Your task to perform on an android device: stop showing notifications on the lock screen Image 0: 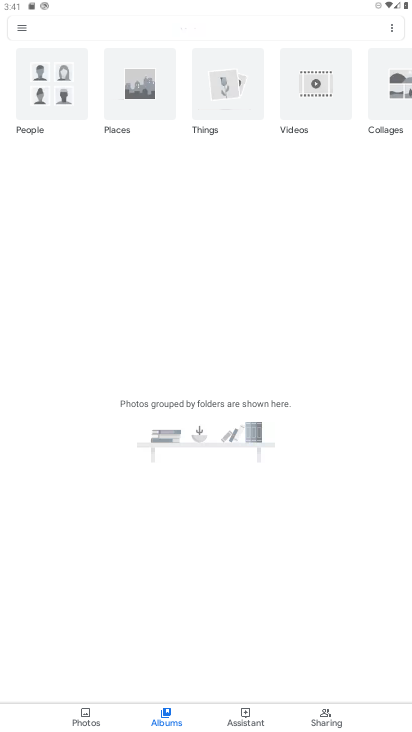
Step 0: press home button
Your task to perform on an android device: stop showing notifications on the lock screen Image 1: 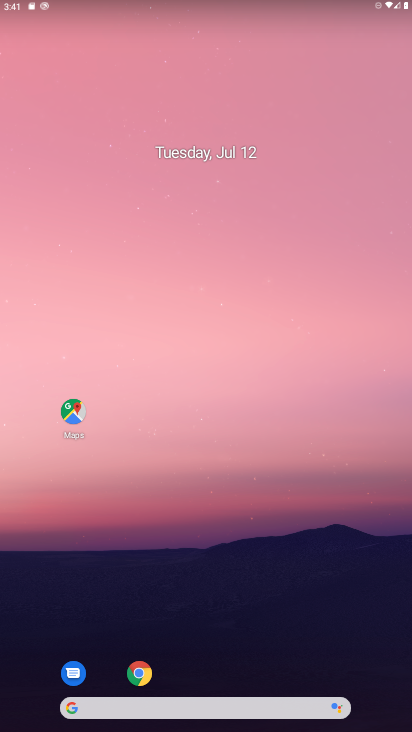
Step 1: drag from (190, 713) to (286, 210)
Your task to perform on an android device: stop showing notifications on the lock screen Image 2: 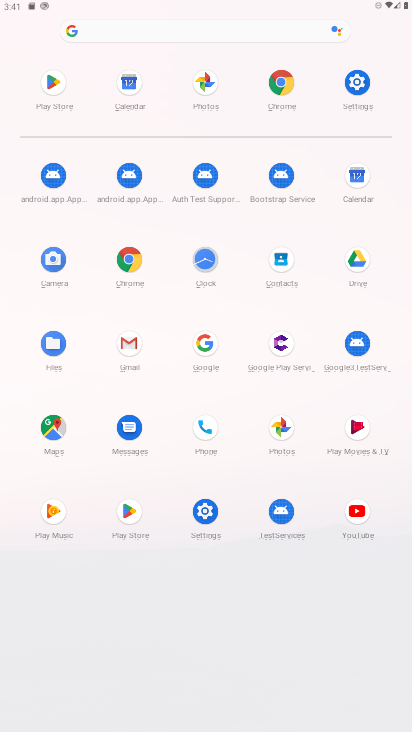
Step 2: click (359, 81)
Your task to perform on an android device: stop showing notifications on the lock screen Image 3: 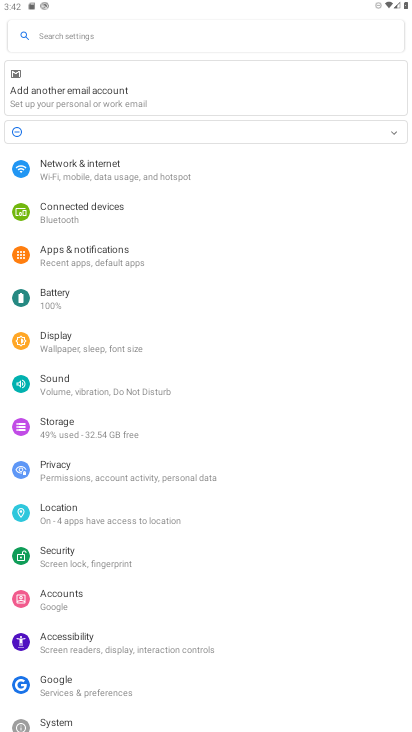
Step 3: click (83, 255)
Your task to perform on an android device: stop showing notifications on the lock screen Image 4: 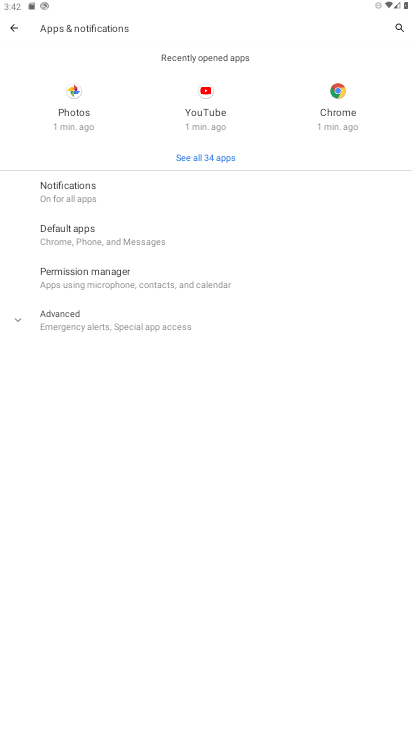
Step 4: click (75, 193)
Your task to perform on an android device: stop showing notifications on the lock screen Image 5: 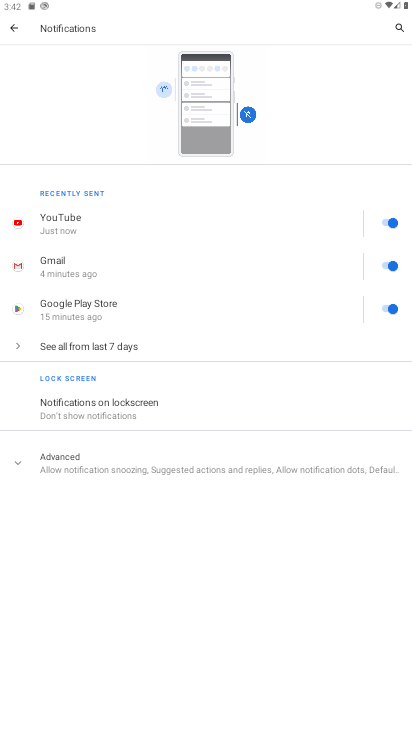
Step 5: click (116, 406)
Your task to perform on an android device: stop showing notifications on the lock screen Image 6: 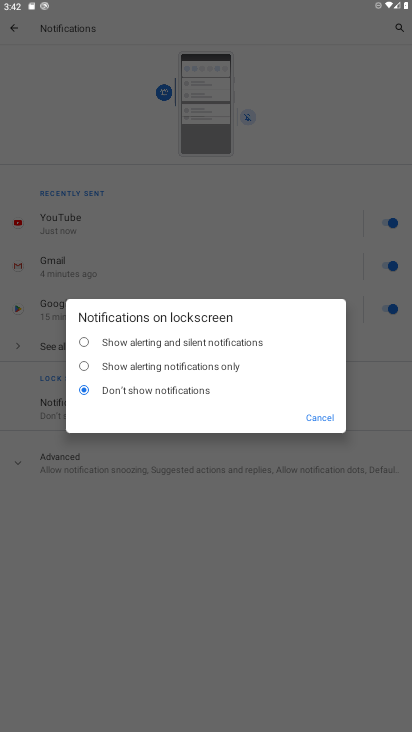
Step 6: click (250, 590)
Your task to perform on an android device: stop showing notifications on the lock screen Image 7: 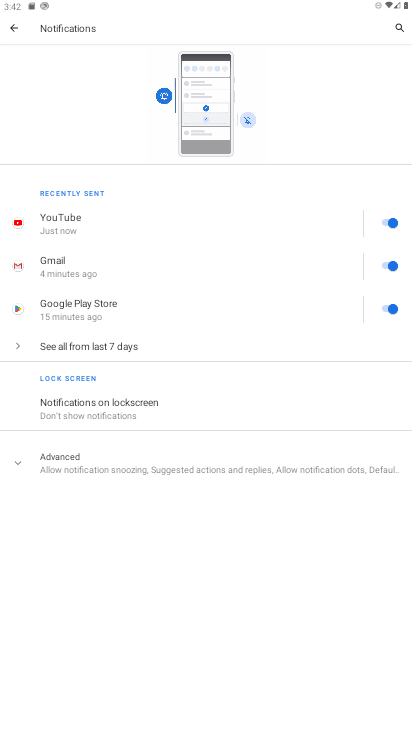
Step 7: task complete